Your task to perform on an android device: Open Google Image 0: 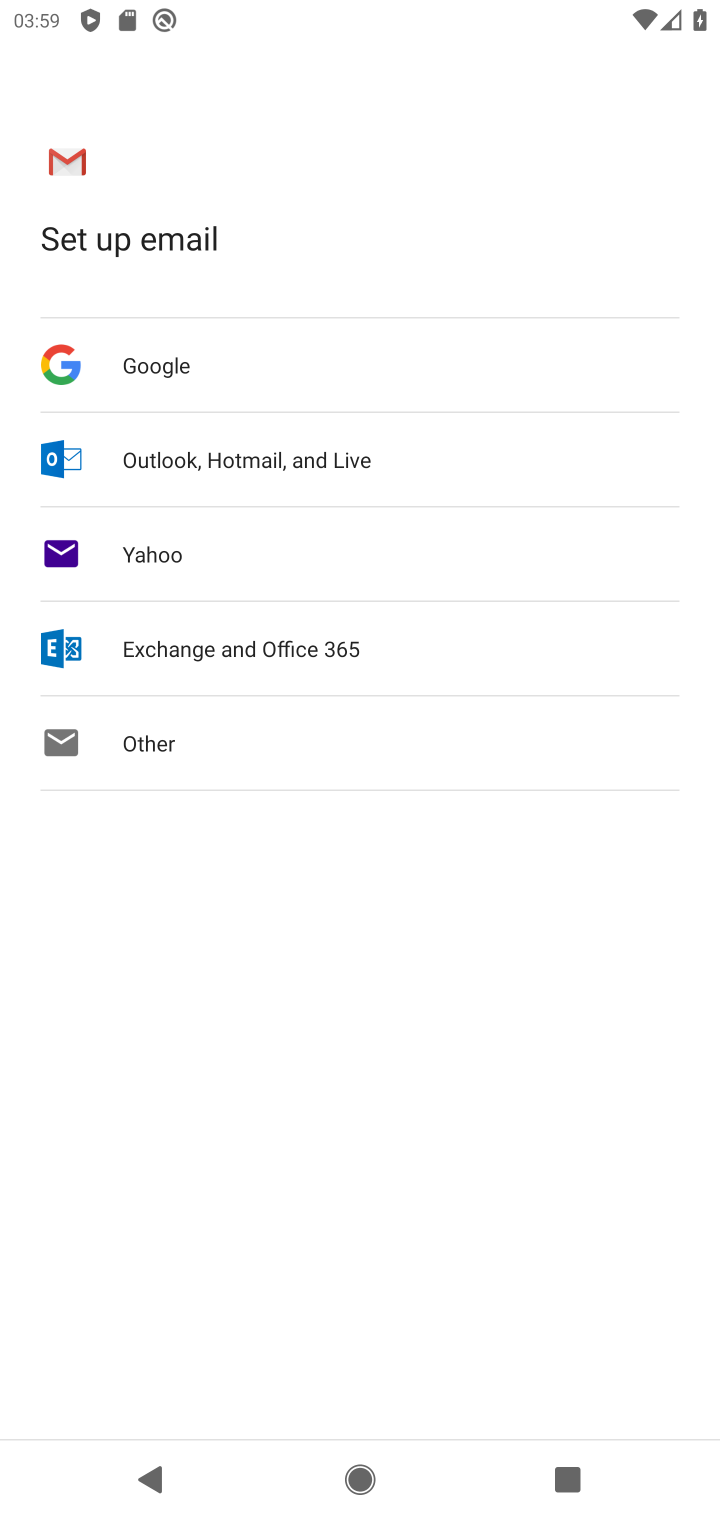
Step 0: press home button
Your task to perform on an android device: Open Google Image 1: 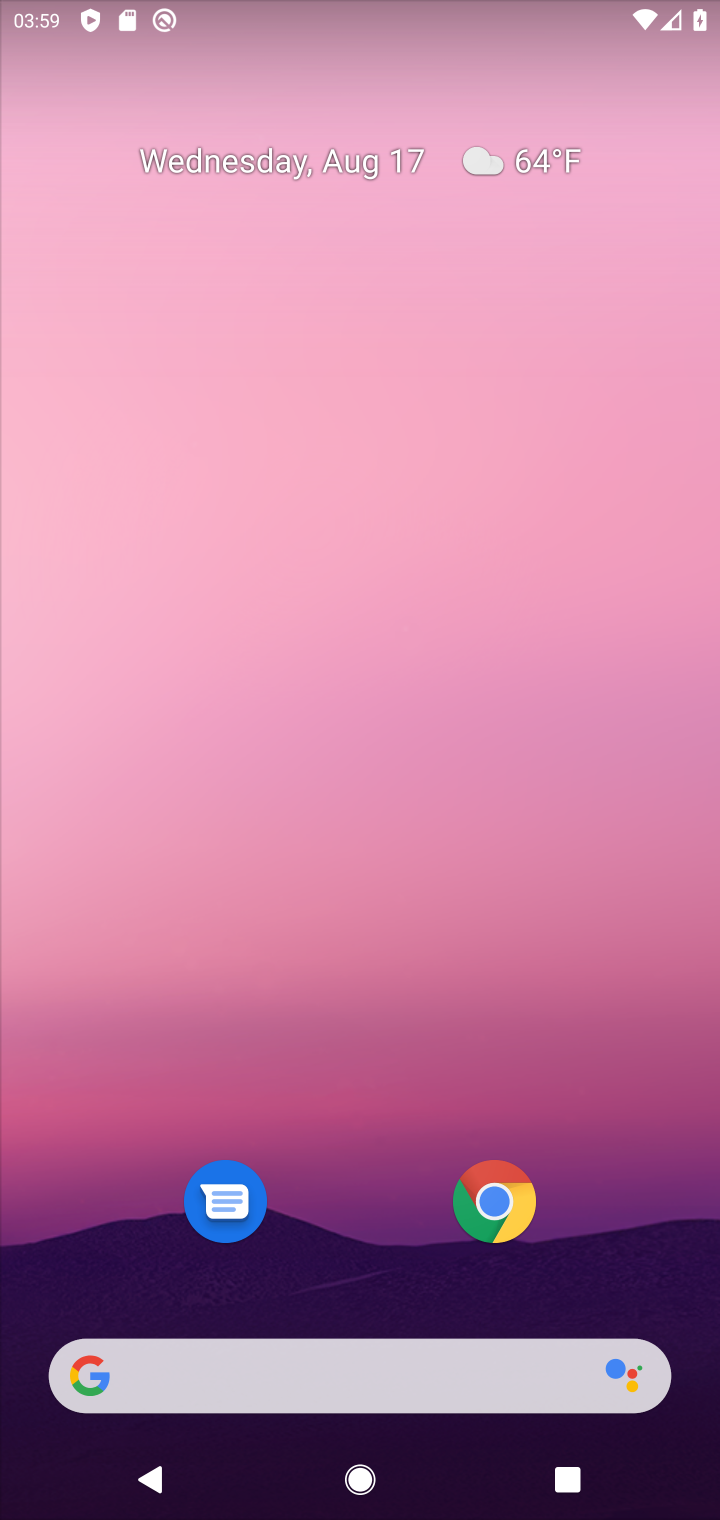
Step 1: click (94, 1382)
Your task to perform on an android device: Open Google Image 2: 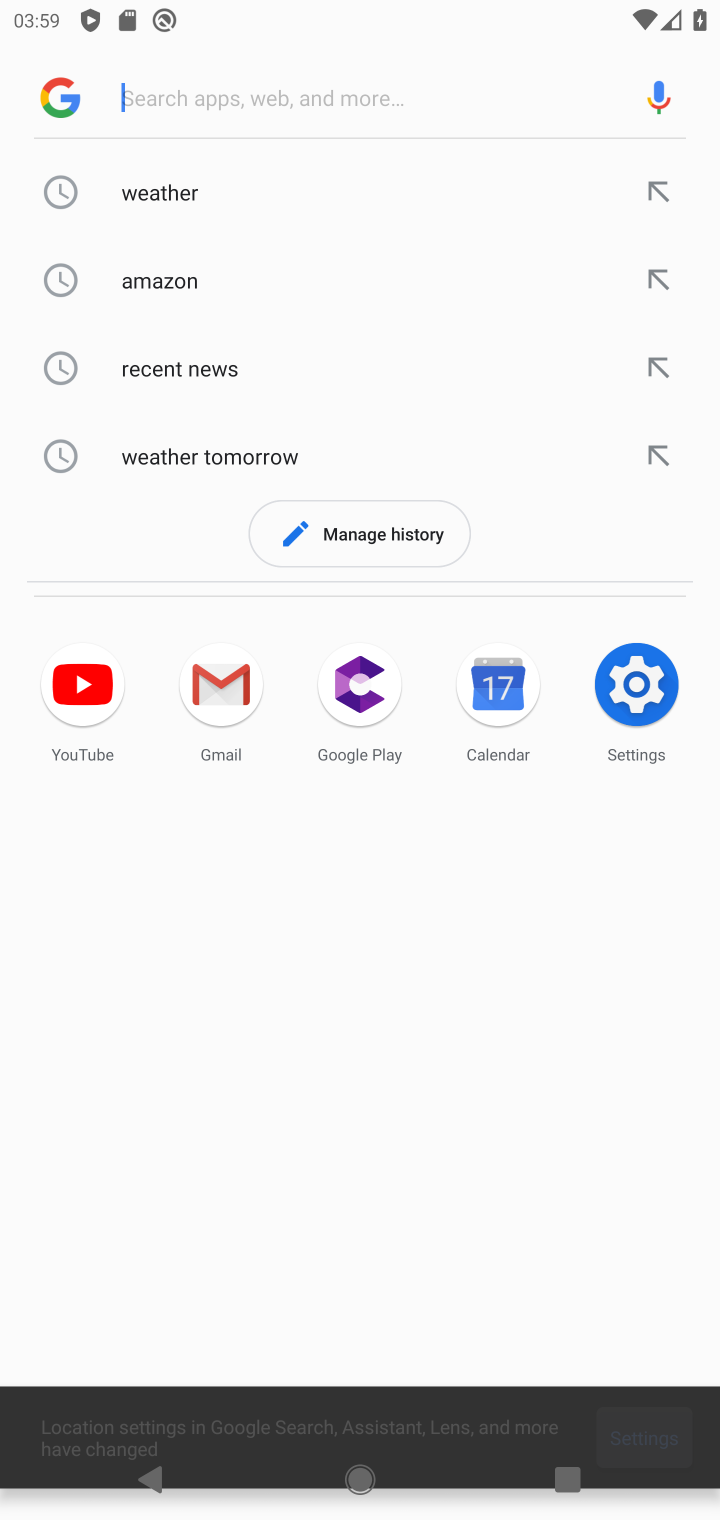
Step 2: click (53, 90)
Your task to perform on an android device: Open Google Image 3: 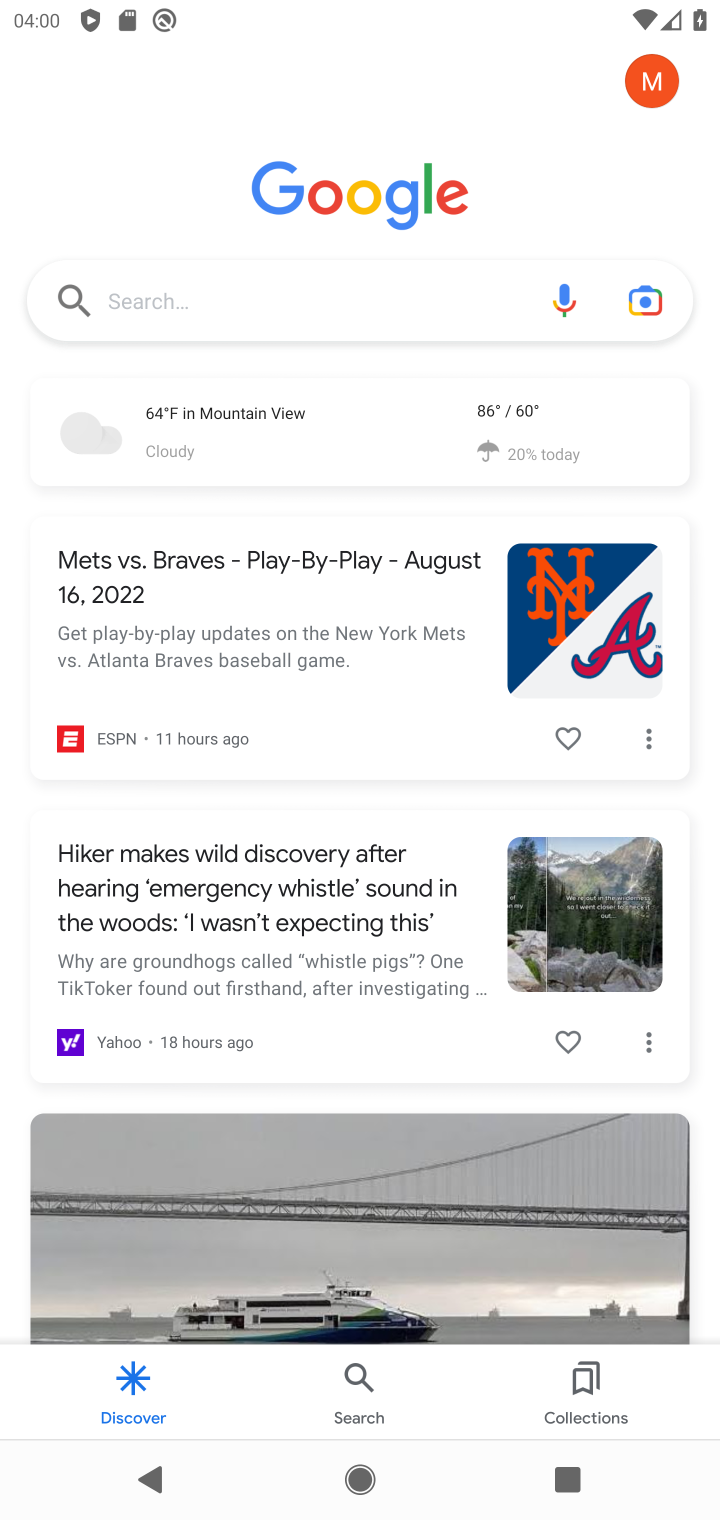
Step 3: task complete